Your task to perform on an android device: toggle priority inbox in the gmail app Image 0: 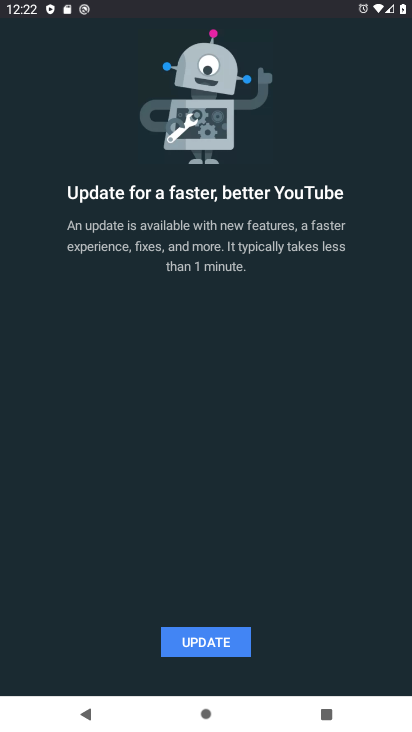
Step 0: press home button
Your task to perform on an android device: toggle priority inbox in the gmail app Image 1: 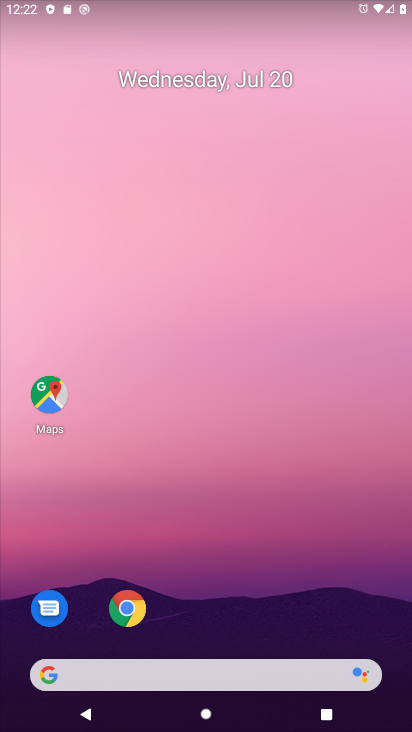
Step 1: drag from (203, 674) to (210, 201)
Your task to perform on an android device: toggle priority inbox in the gmail app Image 2: 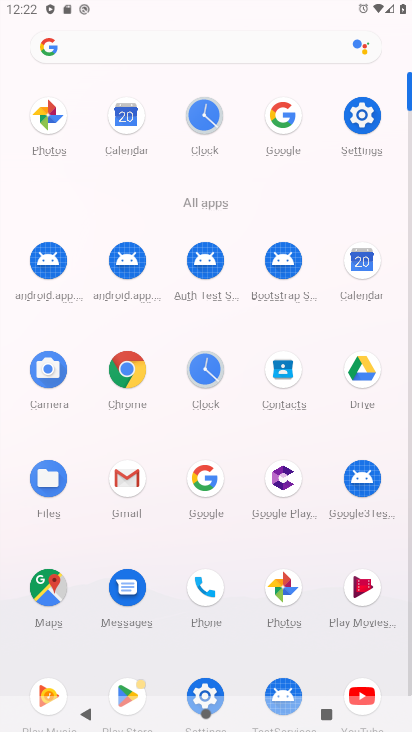
Step 2: click (125, 476)
Your task to perform on an android device: toggle priority inbox in the gmail app Image 3: 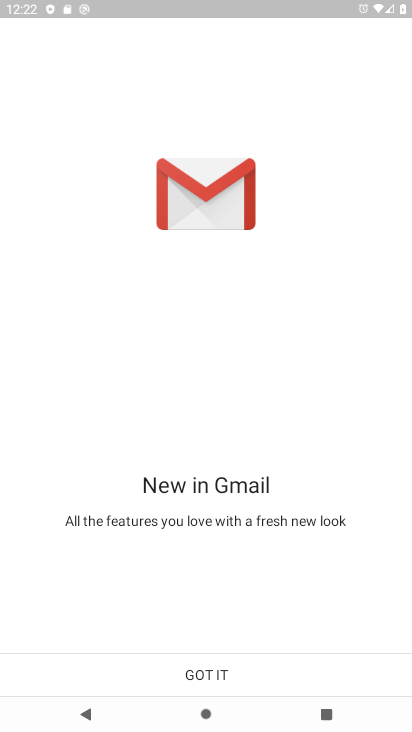
Step 3: click (202, 673)
Your task to perform on an android device: toggle priority inbox in the gmail app Image 4: 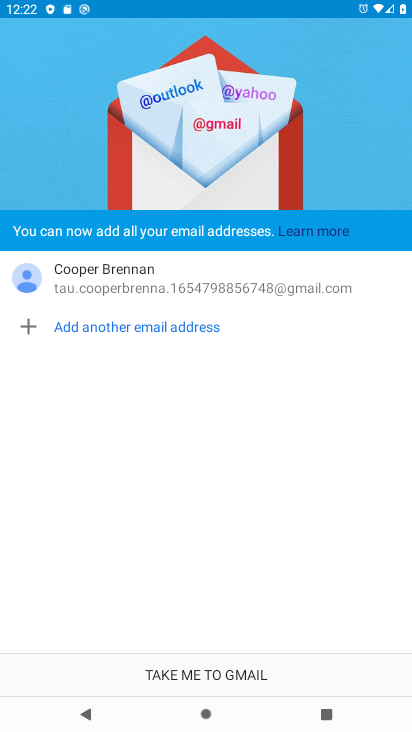
Step 4: click (204, 671)
Your task to perform on an android device: toggle priority inbox in the gmail app Image 5: 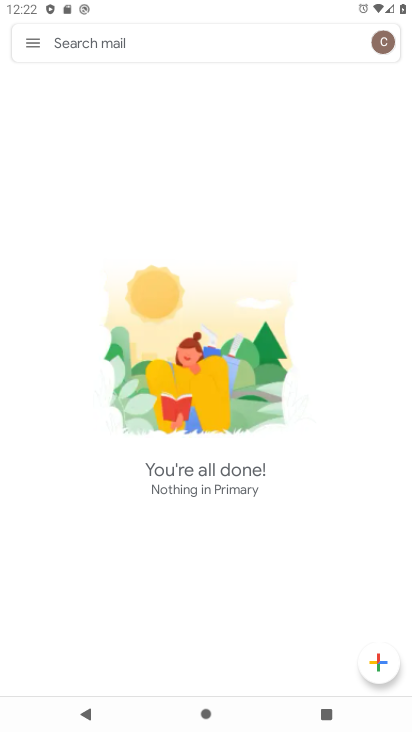
Step 5: click (33, 45)
Your task to perform on an android device: toggle priority inbox in the gmail app Image 6: 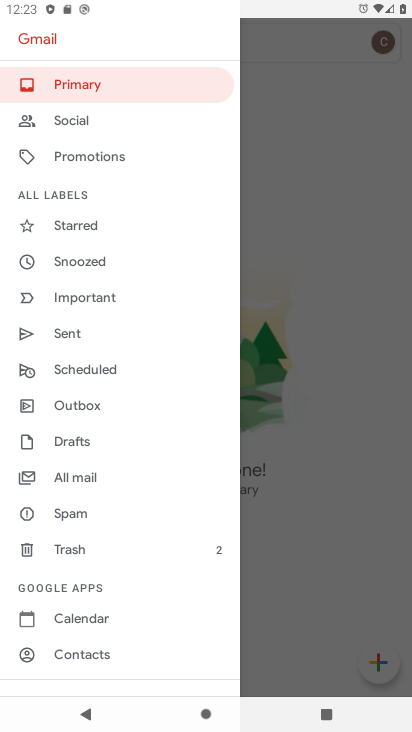
Step 6: drag from (57, 560) to (75, 429)
Your task to perform on an android device: toggle priority inbox in the gmail app Image 7: 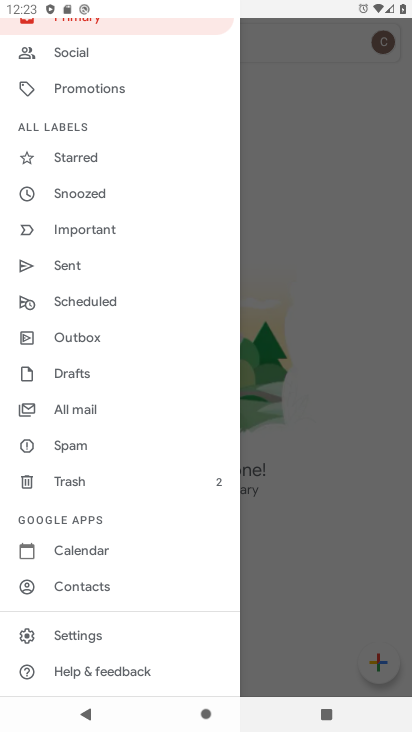
Step 7: click (88, 631)
Your task to perform on an android device: toggle priority inbox in the gmail app Image 8: 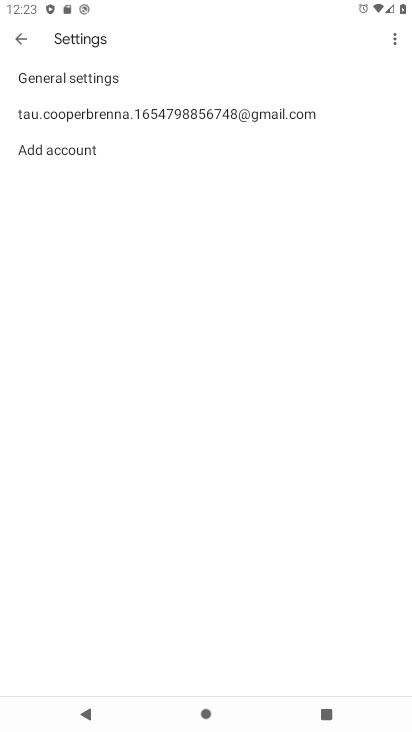
Step 8: click (174, 115)
Your task to perform on an android device: toggle priority inbox in the gmail app Image 9: 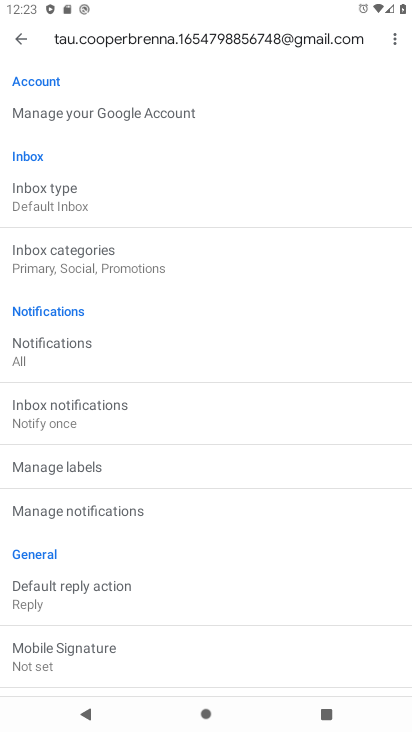
Step 9: click (76, 207)
Your task to perform on an android device: toggle priority inbox in the gmail app Image 10: 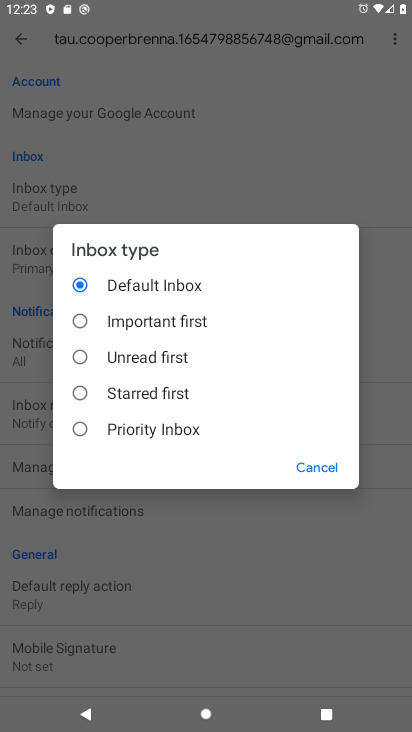
Step 10: click (75, 429)
Your task to perform on an android device: toggle priority inbox in the gmail app Image 11: 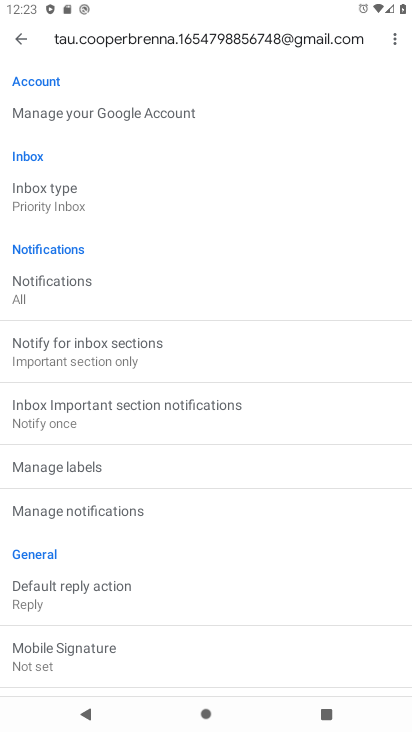
Step 11: task complete